Your task to perform on an android device: check the backup settings in the google photos Image 0: 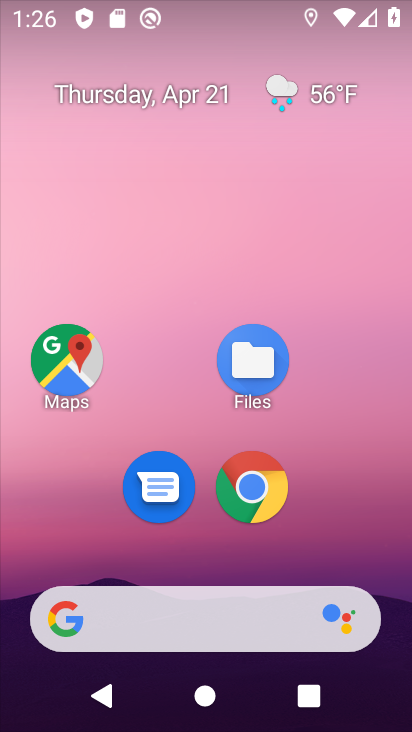
Step 0: drag from (378, 522) to (385, 171)
Your task to perform on an android device: check the backup settings in the google photos Image 1: 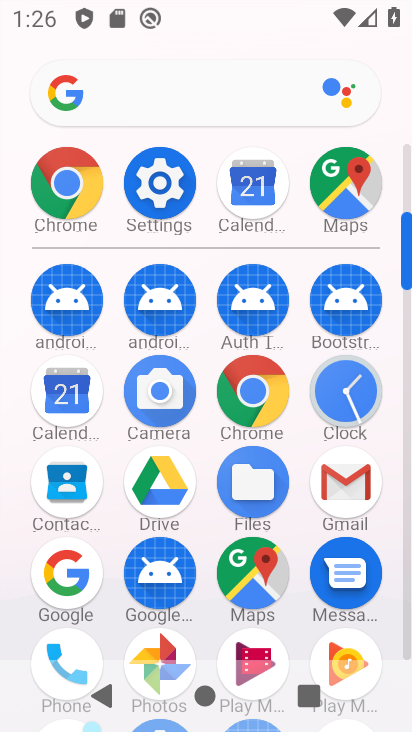
Step 1: drag from (289, 607) to (285, 317)
Your task to perform on an android device: check the backup settings in the google photos Image 2: 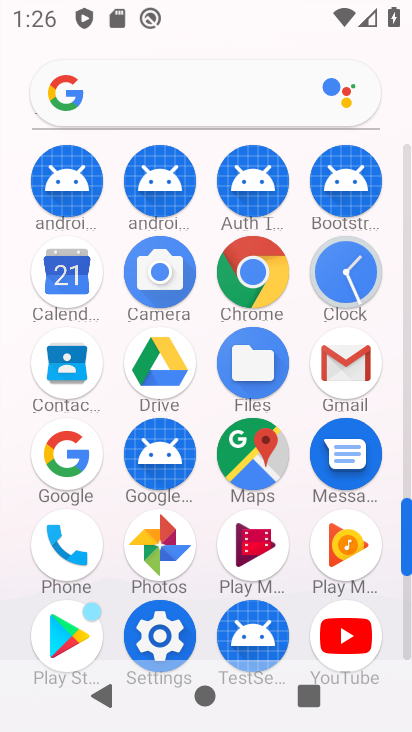
Step 2: click (183, 567)
Your task to perform on an android device: check the backup settings in the google photos Image 3: 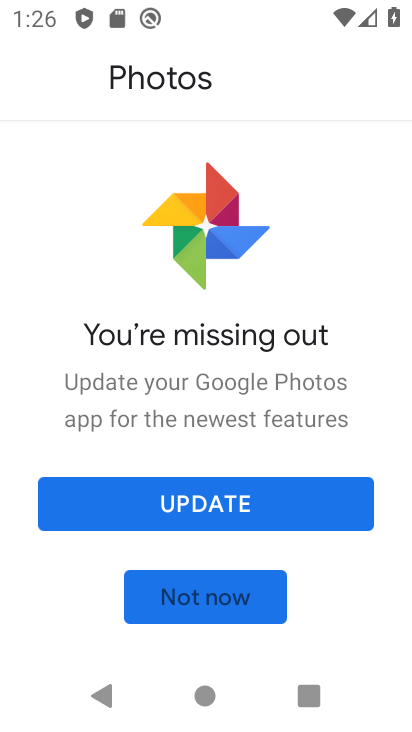
Step 3: click (198, 521)
Your task to perform on an android device: check the backup settings in the google photos Image 4: 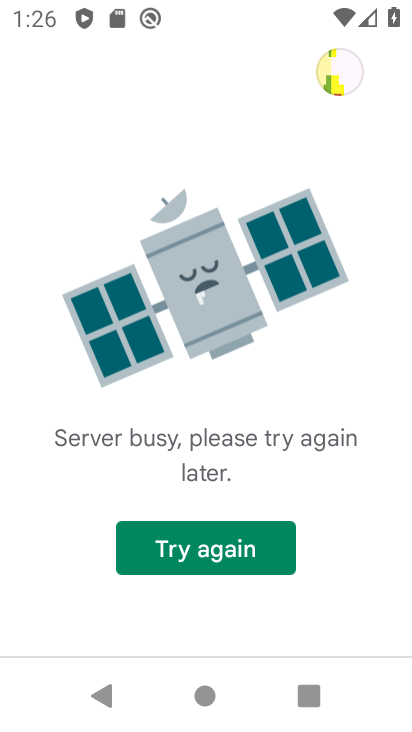
Step 4: task complete